Your task to perform on an android device: Go to Google Image 0: 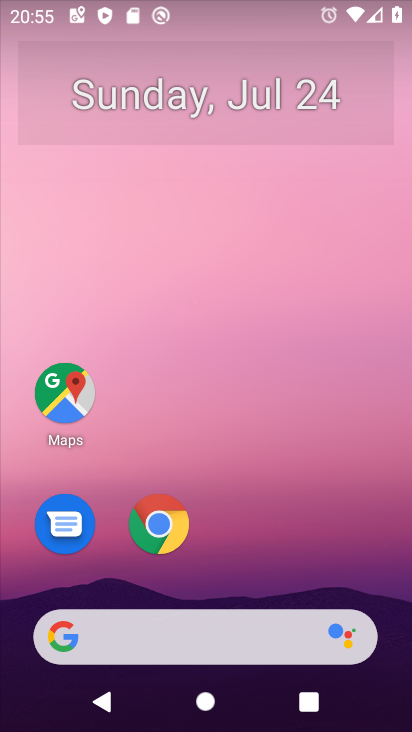
Step 0: drag from (255, 530) to (274, 0)
Your task to perform on an android device: Go to Google Image 1: 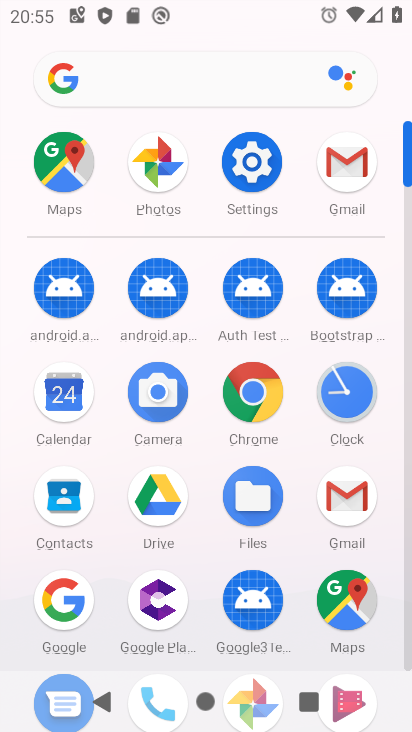
Step 1: click (64, 595)
Your task to perform on an android device: Go to Google Image 2: 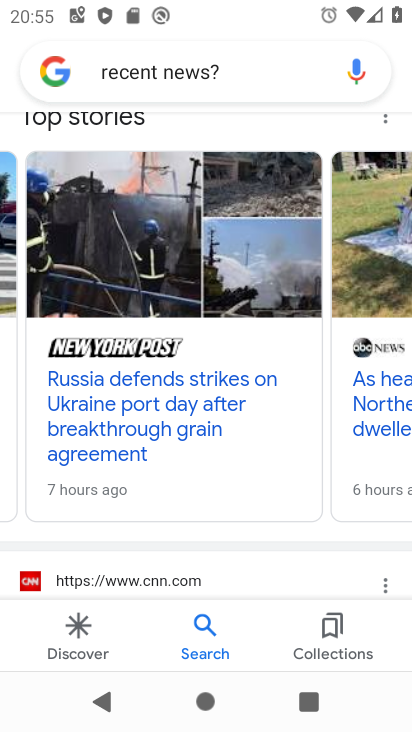
Step 2: click (60, 73)
Your task to perform on an android device: Go to Google Image 3: 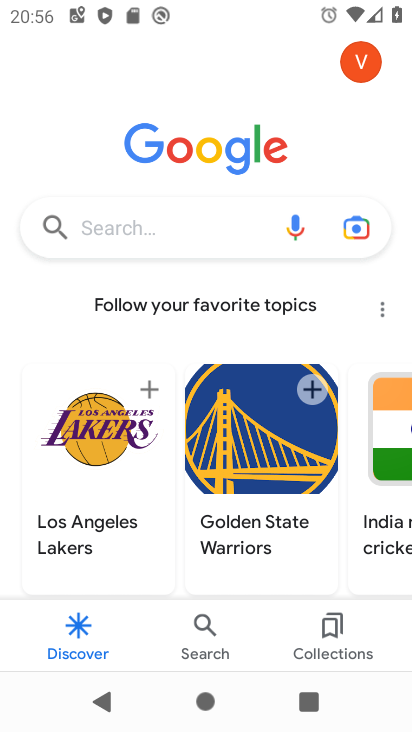
Step 3: task complete